Your task to perform on an android device: Go to privacy settings Image 0: 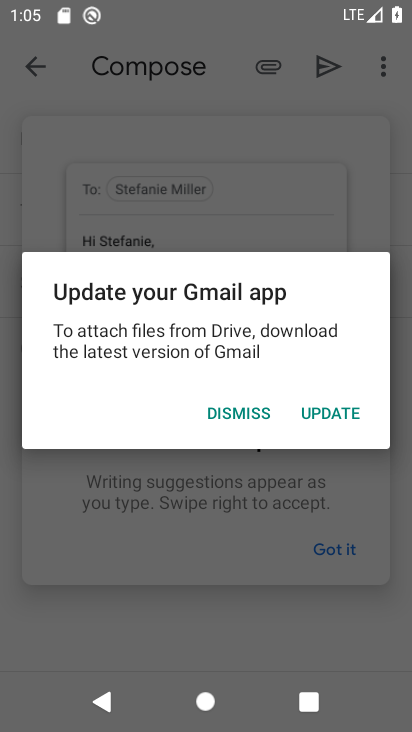
Step 0: press home button
Your task to perform on an android device: Go to privacy settings Image 1: 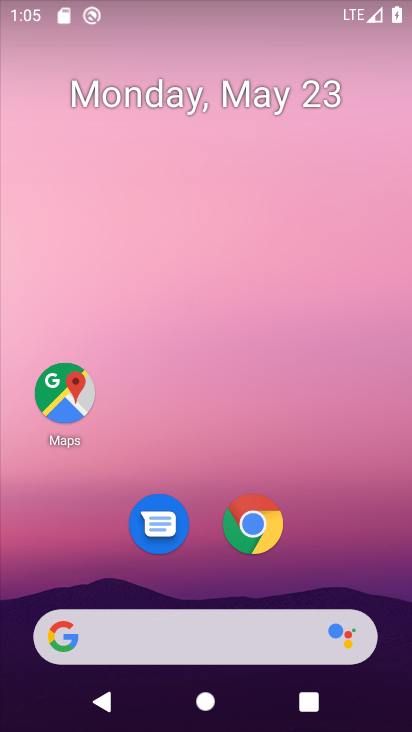
Step 1: drag from (241, 448) to (228, 9)
Your task to perform on an android device: Go to privacy settings Image 2: 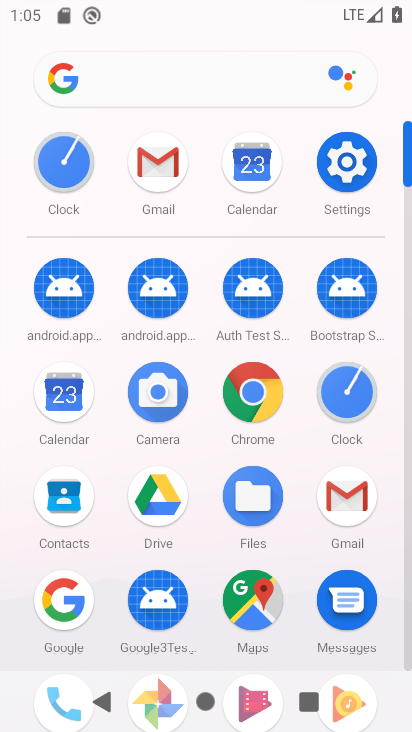
Step 2: click (343, 162)
Your task to perform on an android device: Go to privacy settings Image 3: 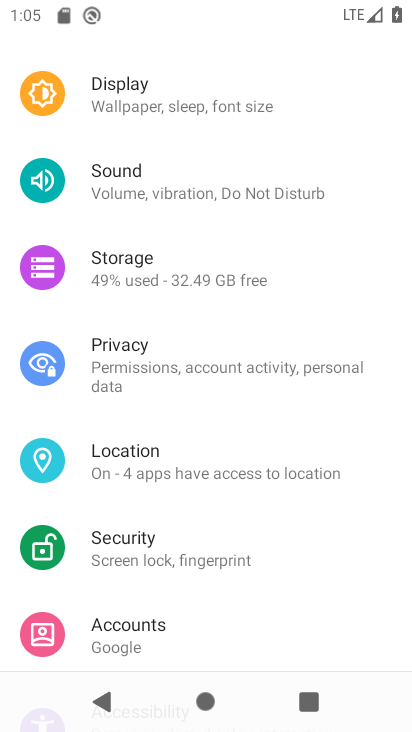
Step 3: click (235, 348)
Your task to perform on an android device: Go to privacy settings Image 4: 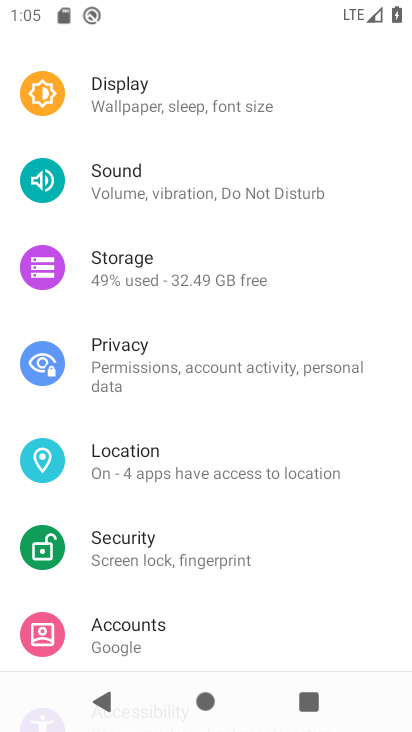
Step 4: click (232, 361)
Your task to perform on an android device: Go to privacy settings Image 5: 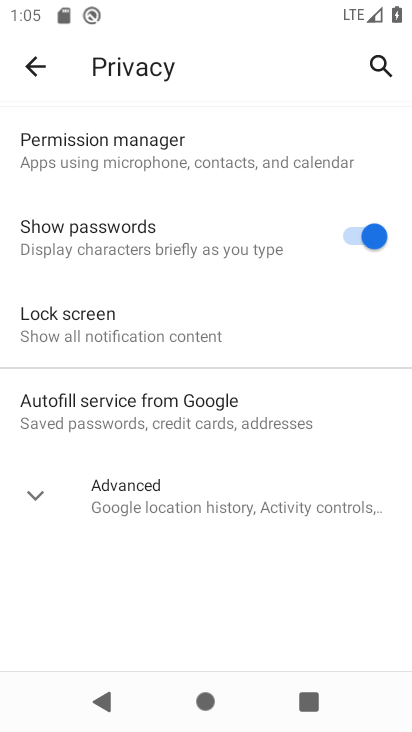
Step 5: task complete